Your task to perform on an android device: Toggle notifications for the Google Maps app Image 0: 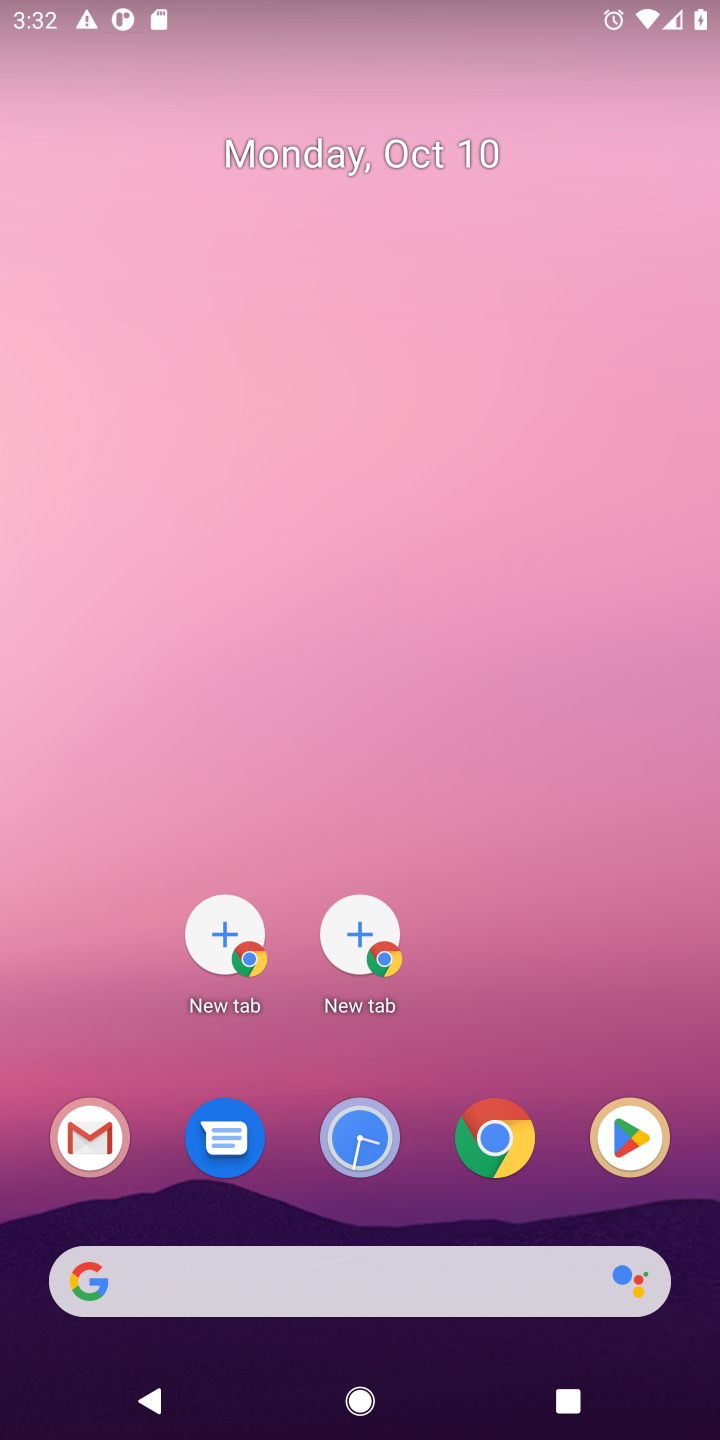
Step 0: drag from (325, 1208) to (476, 507)
Your task to perform on an android device: Toggle notifications for the Google Maps app Image 1: 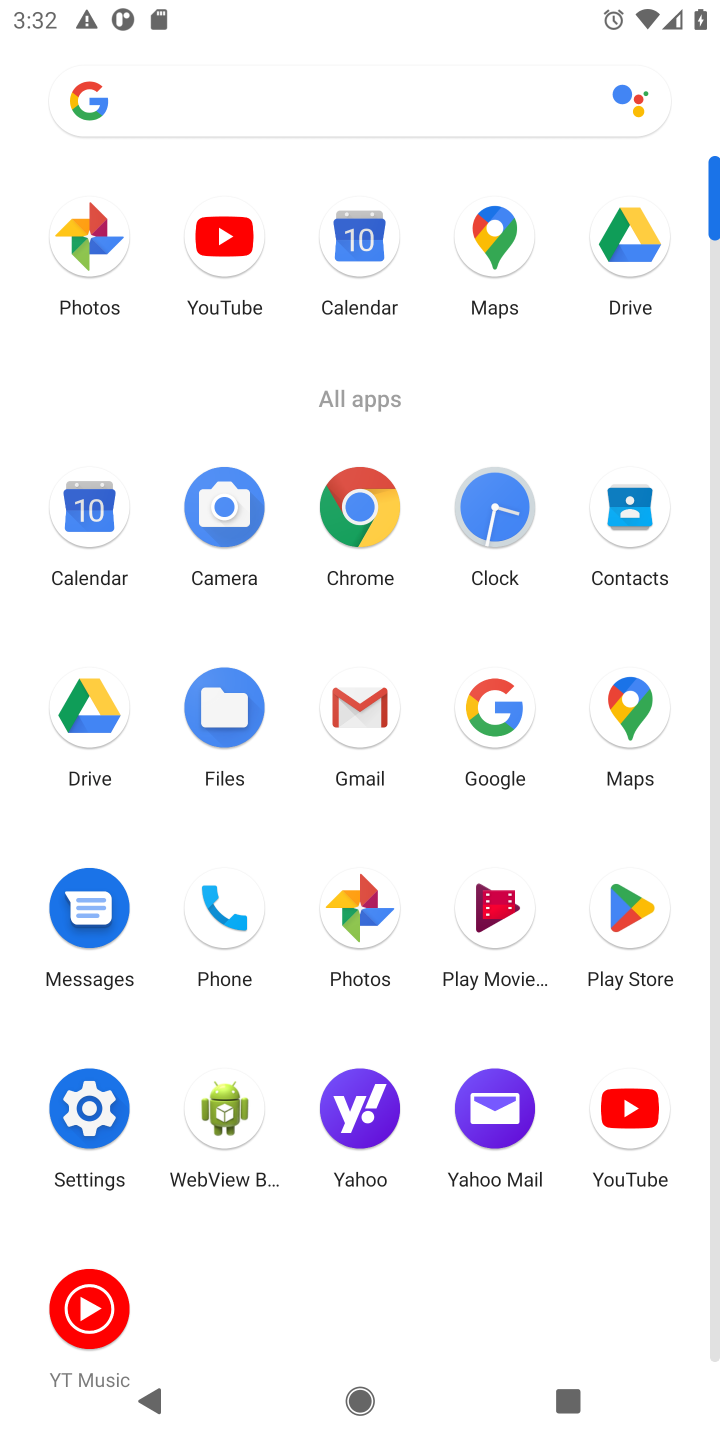
Step 1: drag from (291, 1240) to (288, 1081)
Your task to perform on an android device: Toggle notifications for the Google Maps app Image 2: 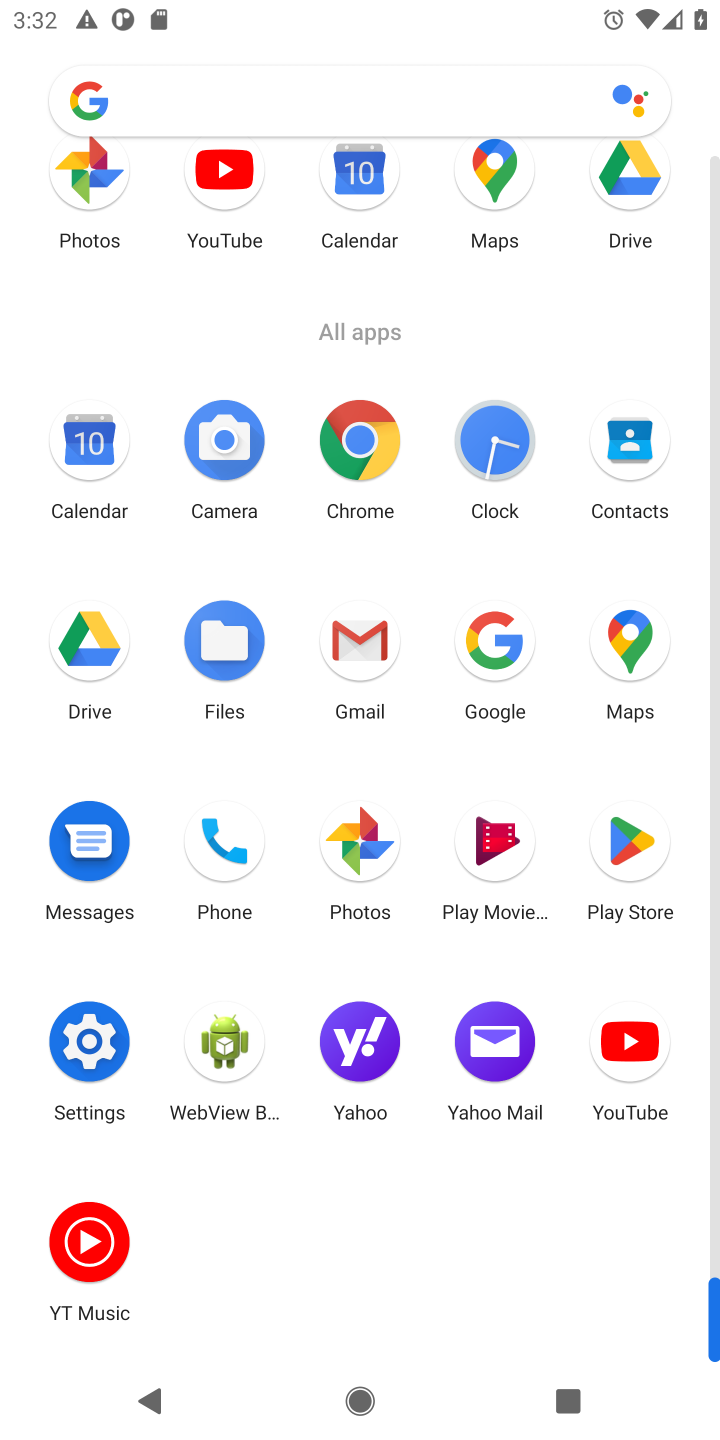
Step 2: click (85, 1066)
Your task to perform on an android device: Toggle notifications for the Google Maps app Image 3: 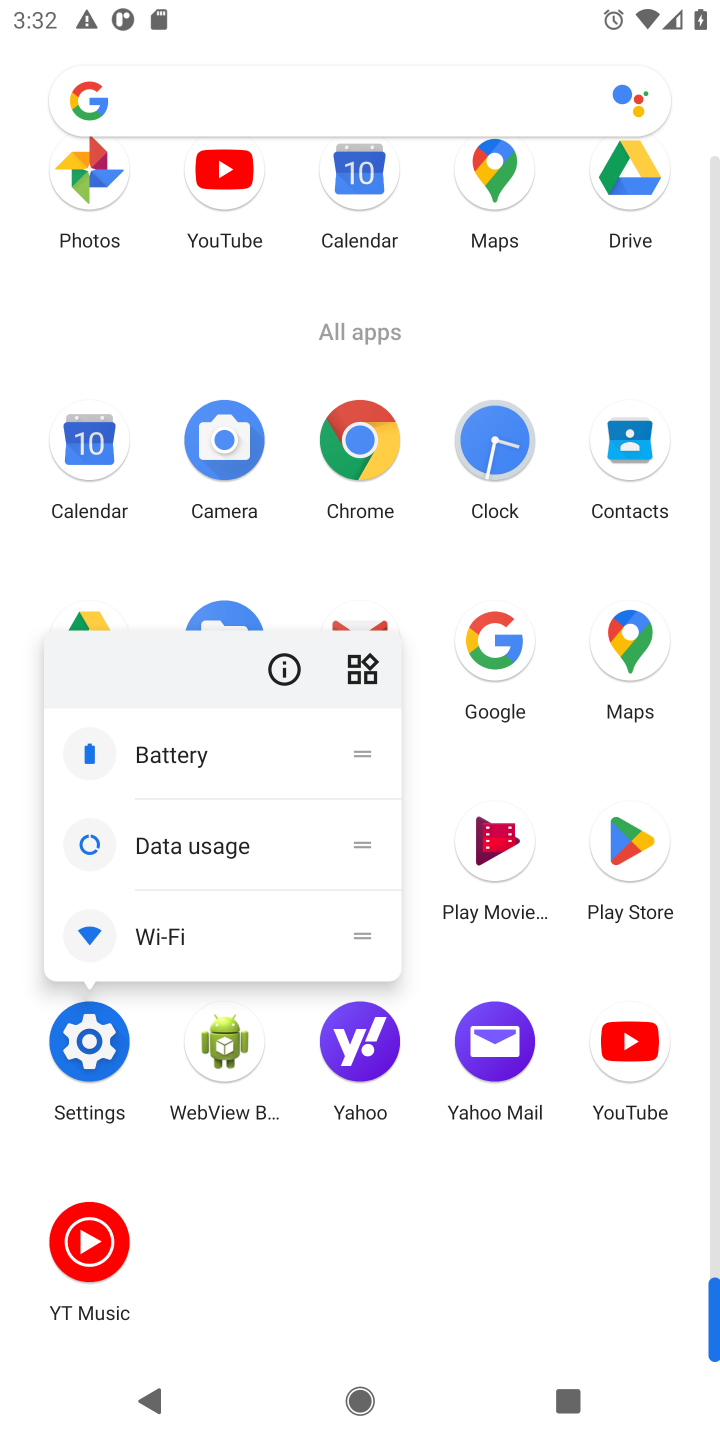
Step 3: click (102, 1034)
Your task to perform on an android device: Toggle notifications for the Google Maps app Image 4: 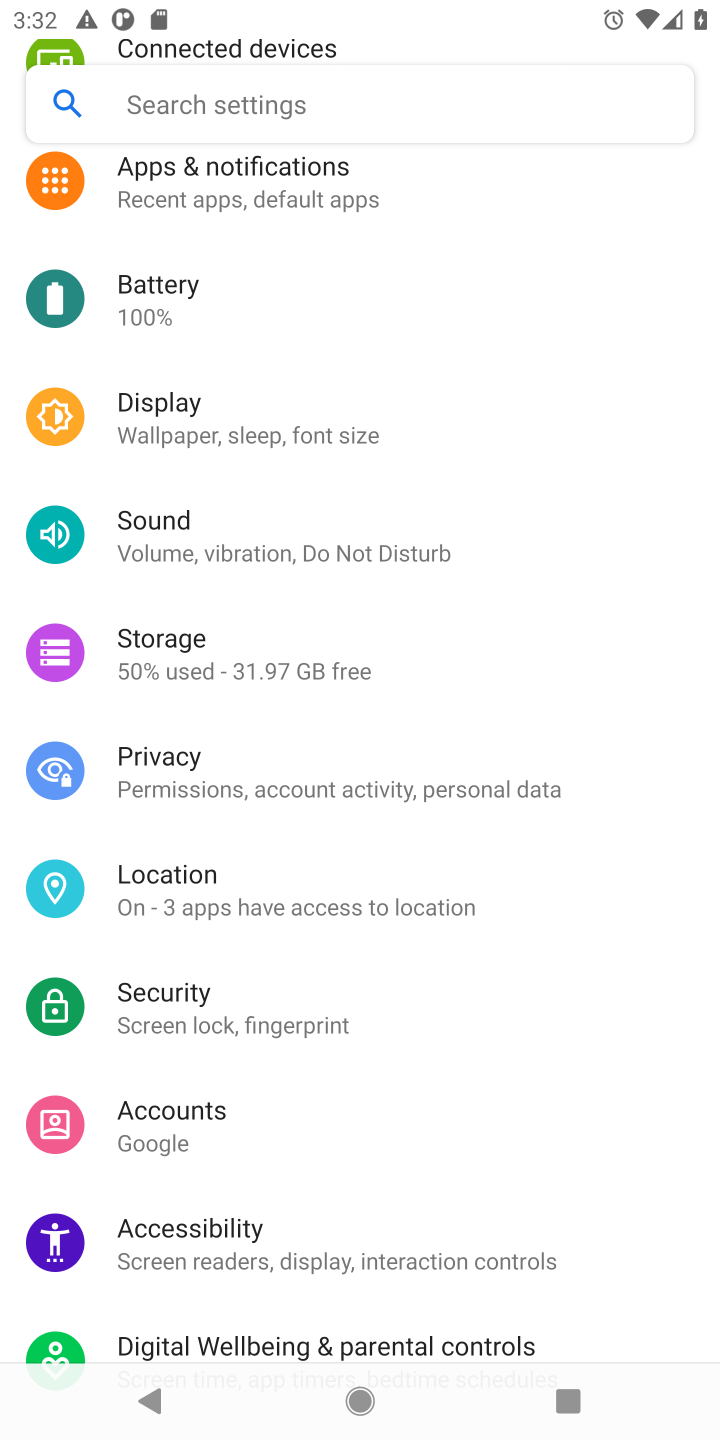
Step 4: click (419, 237)
Your task to perform on an android device: Toggle notifications for the Google Maps app Image 5: 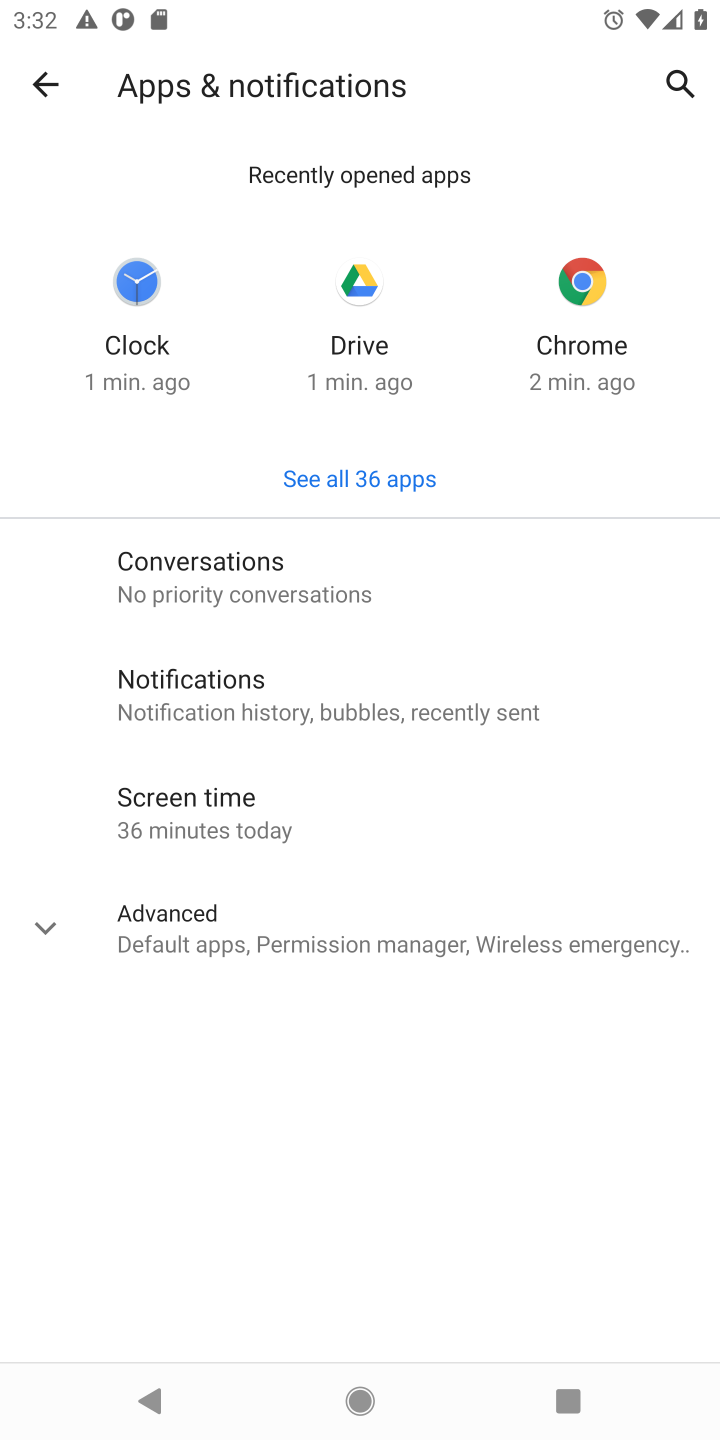
Step 5: click (375, 475)
Your task to perform on an android device: Toggle notifications for the Google Maps app Image 6: 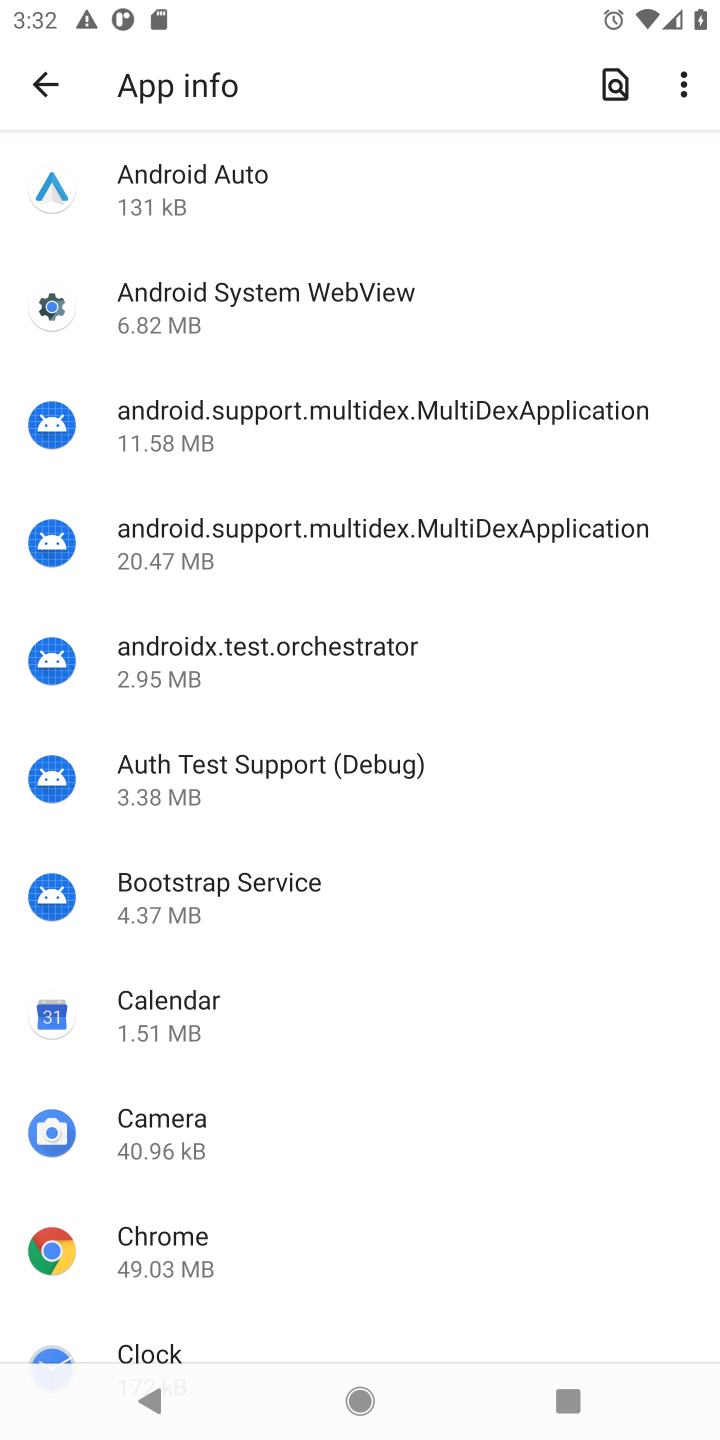
Step 6: drag from (220, 1000) to (226, 289)
Your task to perform on an android device: Toggle notifications for the Google Maps app Image 7: 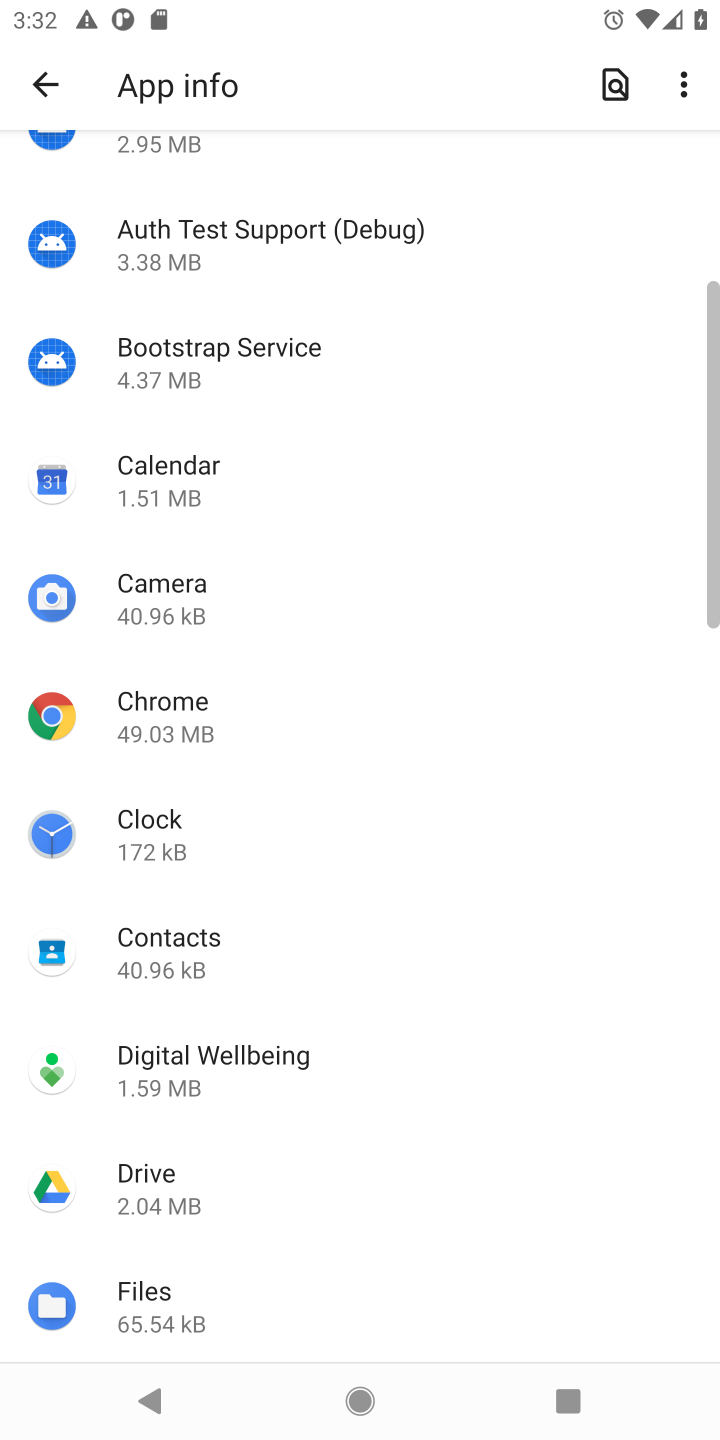
Step 7: drag from (378, 1298) to (445, 398)
Your task to perform on an android device: Toggle notifications for the Google Maps app Image 8: 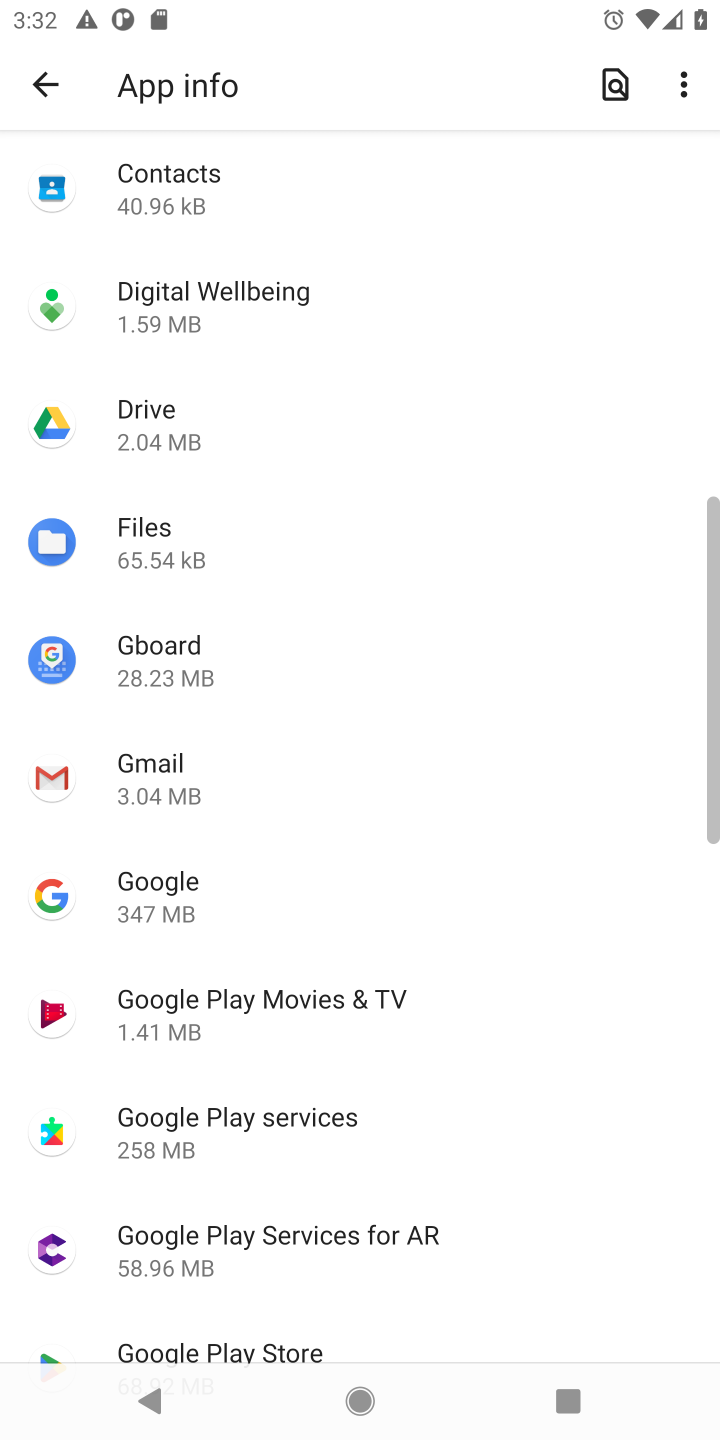
Step 8: drag from (418, 1152) to (479, 547)
Your task to perform on an android device: Toggle notifications for the Google Maps app Image 9: 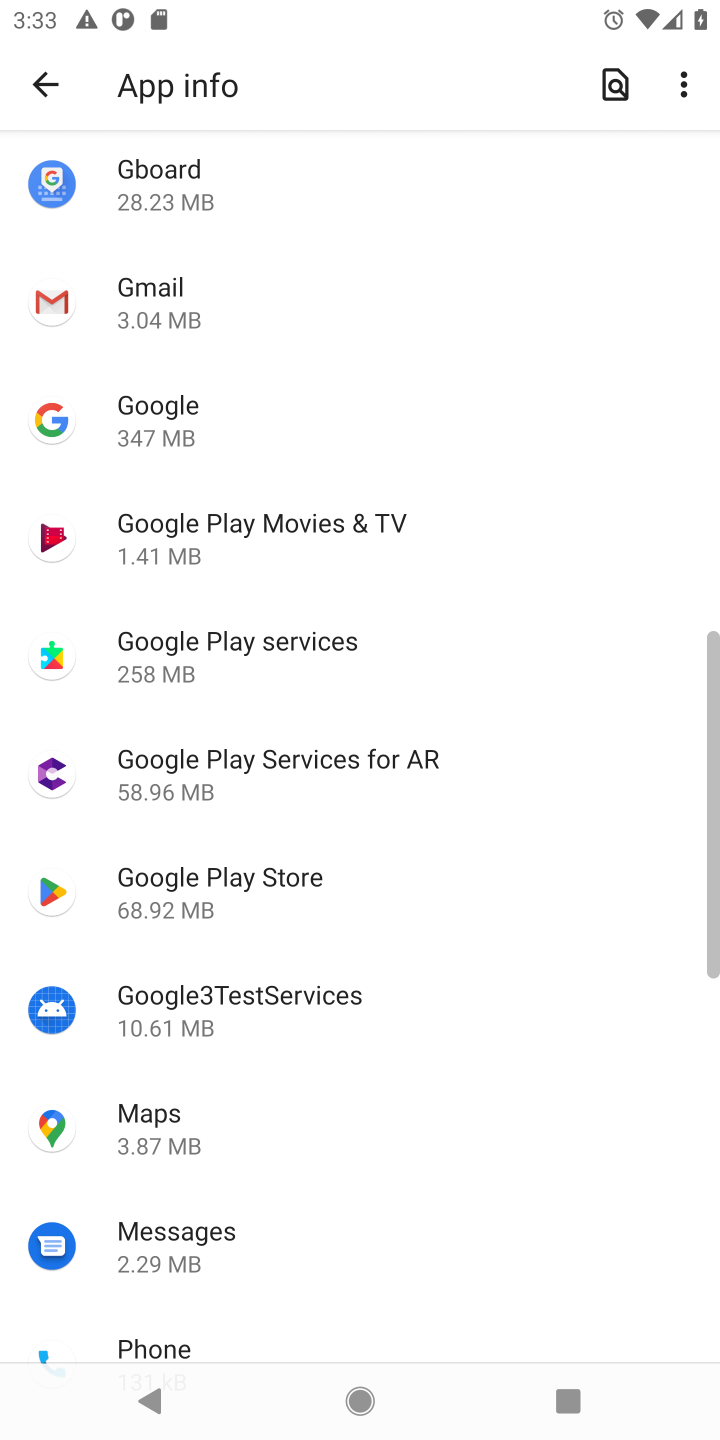
Step 9: click (143, 1150)
Your task to perform on an android device: Toggle notifications for the Google Maps app Image 10: 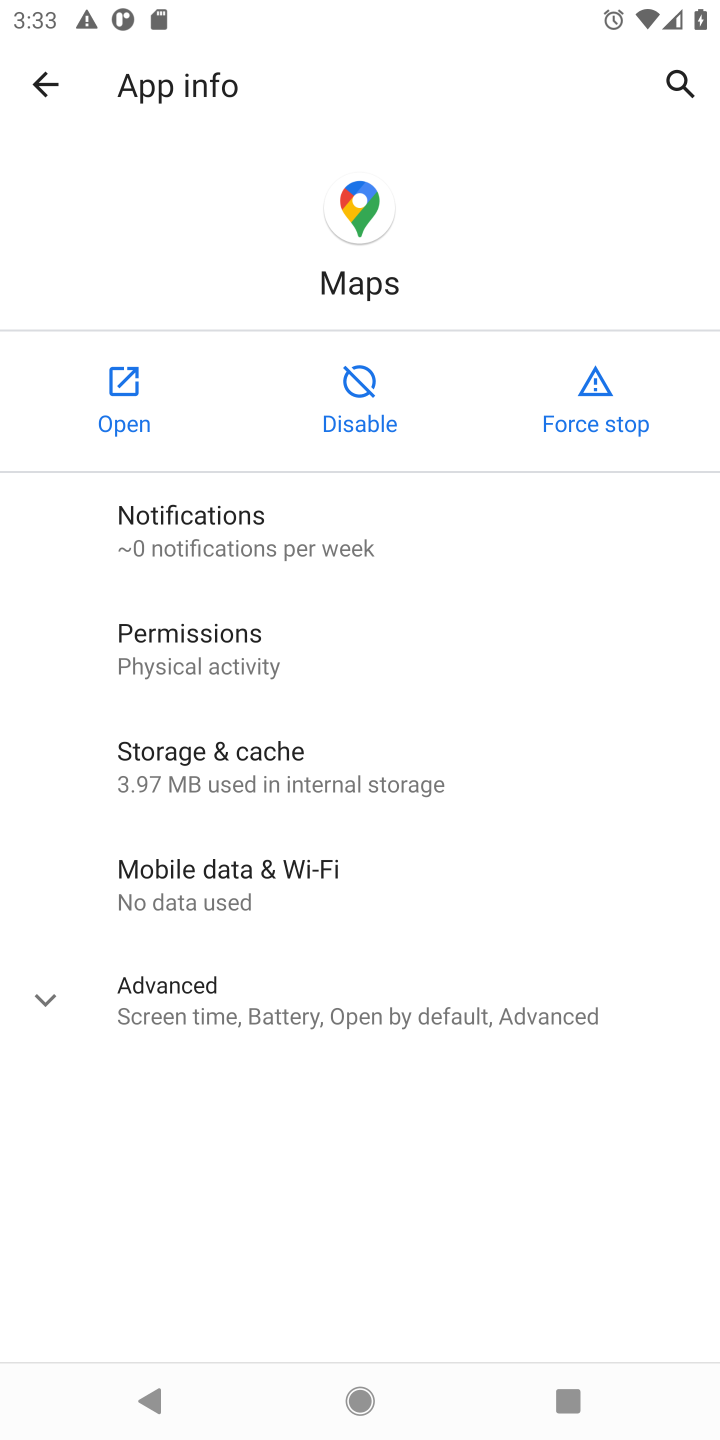
Step 10: click (258, 540)
Your task to perform on an android device: Toggle notifications for the Google Maps app Image 11: 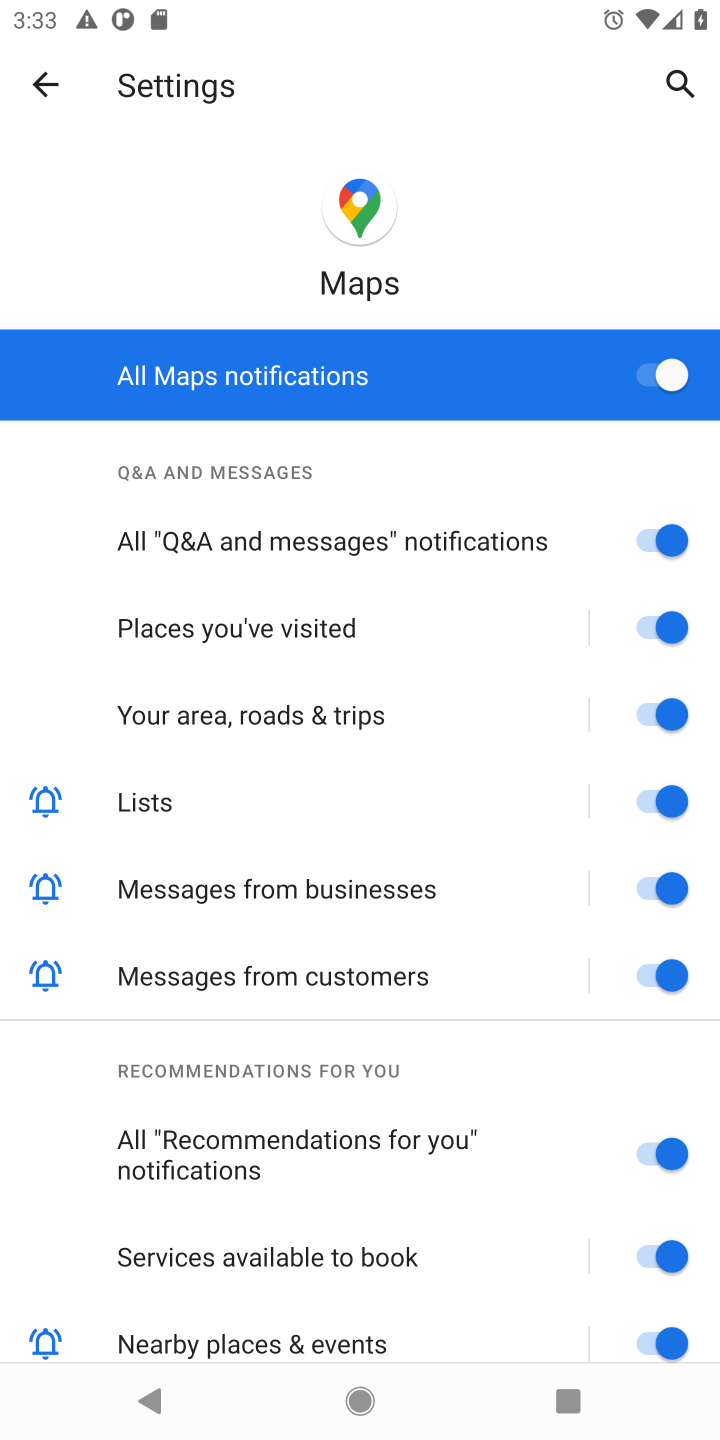
Step 11: click (644, 392)
Your task to perform on an android device: Toggle notifications for the Google Maps app Image 12: 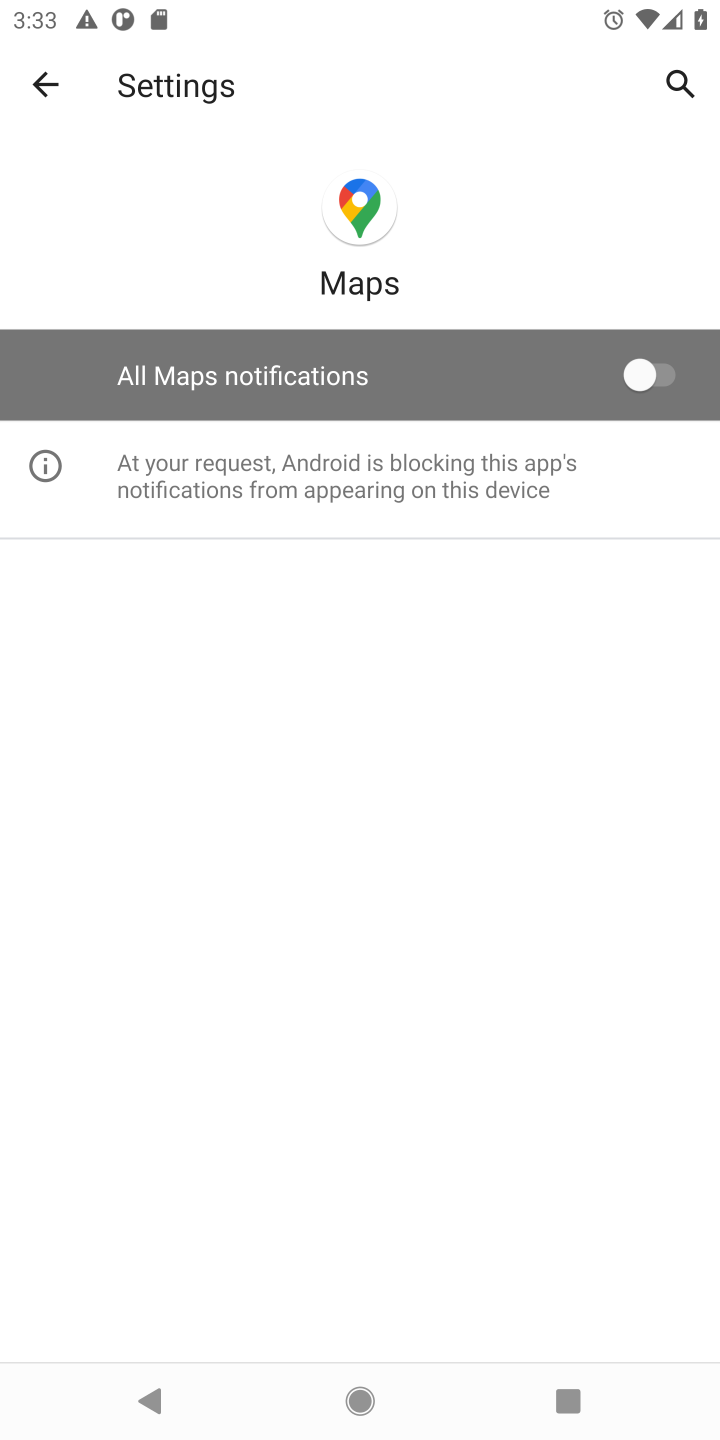
Step 12: click (644, 392)
Your task to perform on an android device: Toggle notifications for the Google Maps app Image 13: 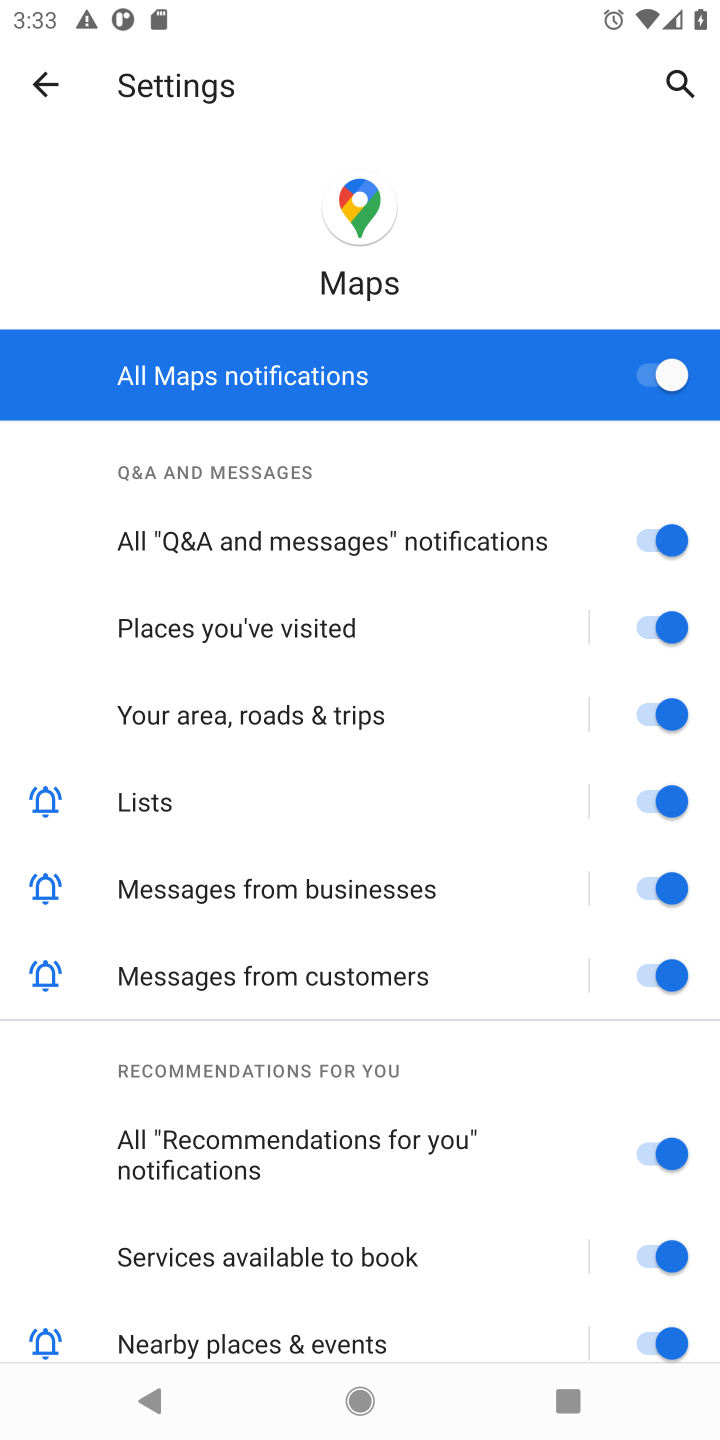
Step 13: task complete